Your task to perform on an android device: Search for pizza restaurants on Maps Image 0: 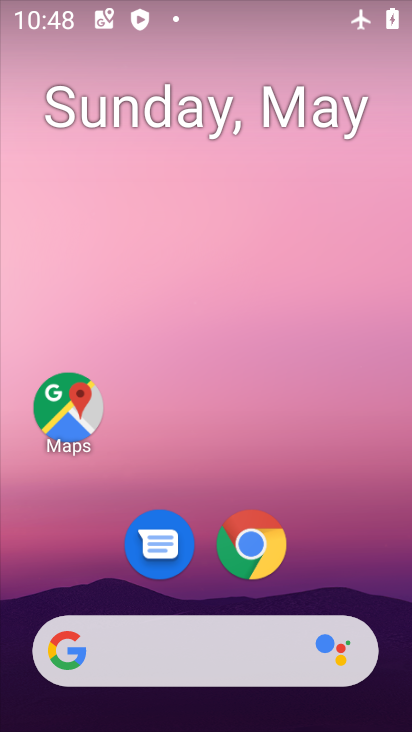
Step 0: click (70, 395)
Your task to perform on an android device: Search for pizza restaurants on Maps Image 1: 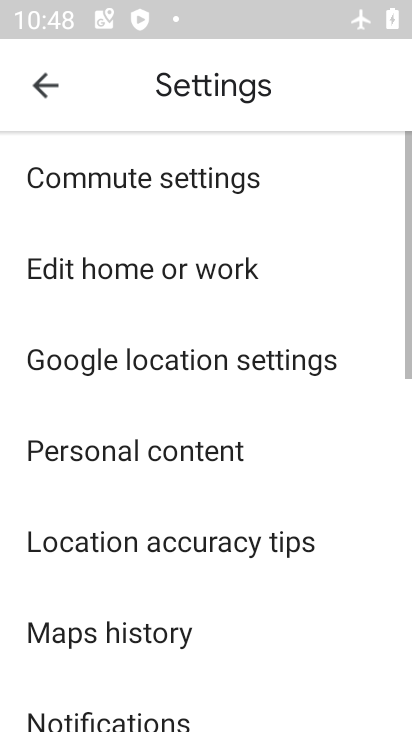
Step 1: click (51, 80)
Your task to perform on an android device: Search for pizza restaurants on Maps Image 2: 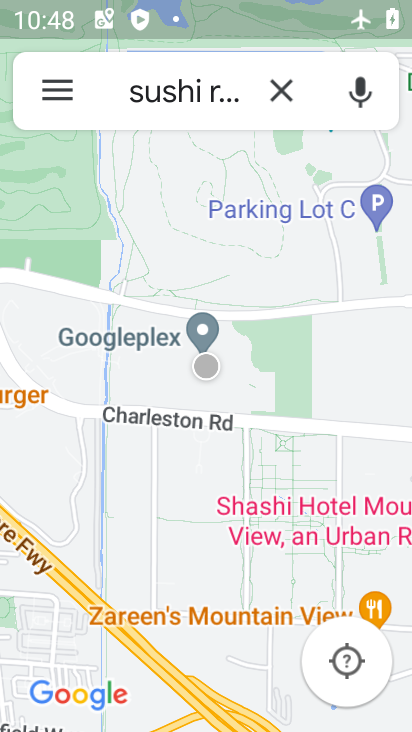
Step 2: click (284, 93)
Your task to perform on an android device: Search for pizza restaurants on Maps Image 3: 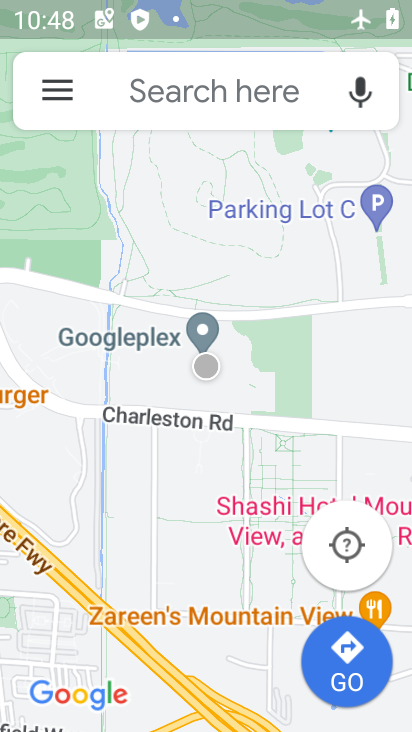
Step 3: click (259, 81)
Your task to perform on an android device: Search for pizza restaurants on Maps Image 4: 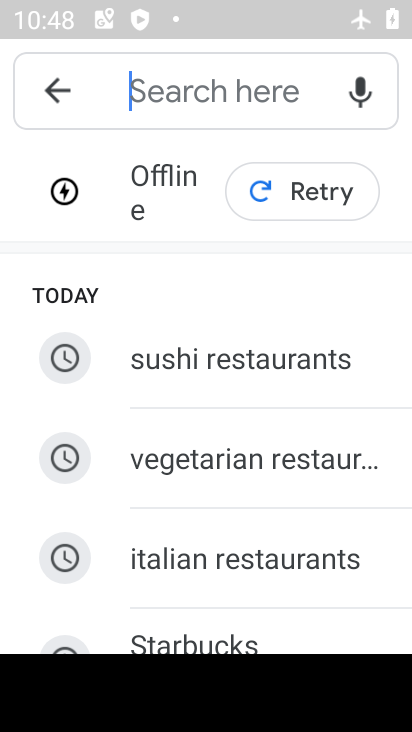
Step 4: type "pizza restaurants "
Your task to perform on an android device: Search for pizza restaurants on Maps Image 5: 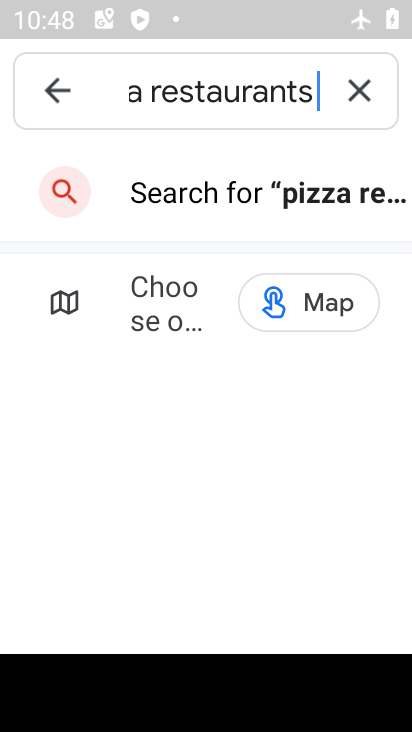
Step 5: click (314, 170)
Your task to perform on an android device: Search for pizza restaurants on Maps Image 6: 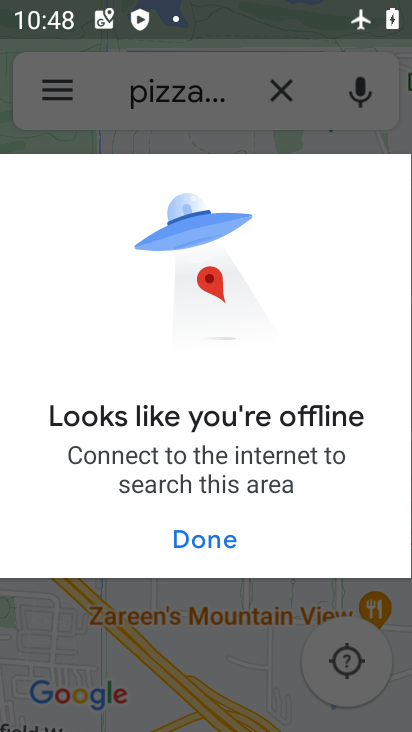
Step 6: click (314, 170)
Your task to perform on an android device: Search for pizza restaurants on Maps Image 7: 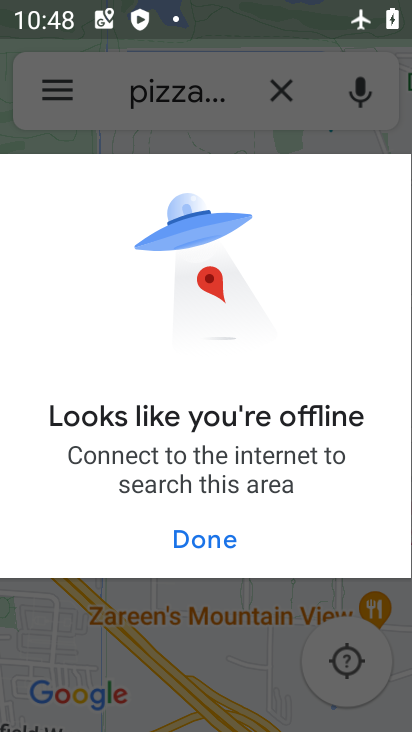
Step 7: click (204, 537)
Your task to perform on an android device: Search for pizza restaurants on Maps Image 8: 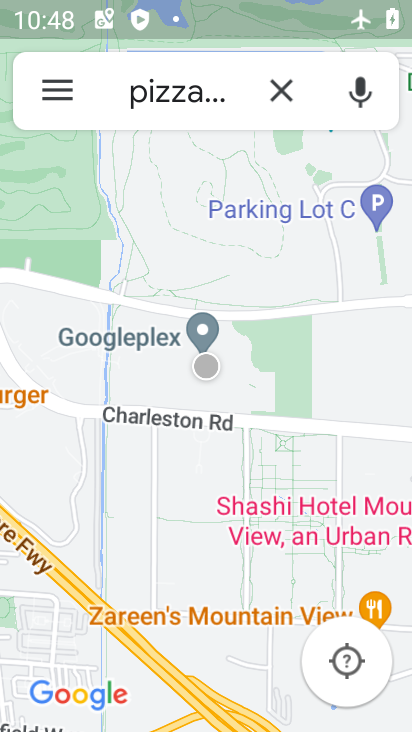
Step 8: task complete